Your task to perform on an android device: Open wifi settings Image 0: 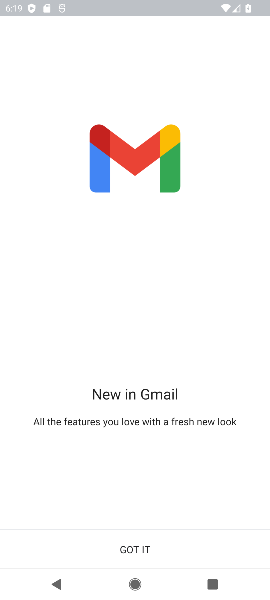
Step 0: press home button
Your task to perform on an android device: Open wifi settings Image 1: 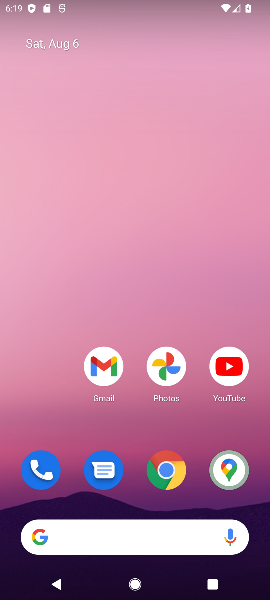
Step 1: drag from (133, 477) to (168, 78)
Your task to perform on an android device: Open wifi settings Image 2: 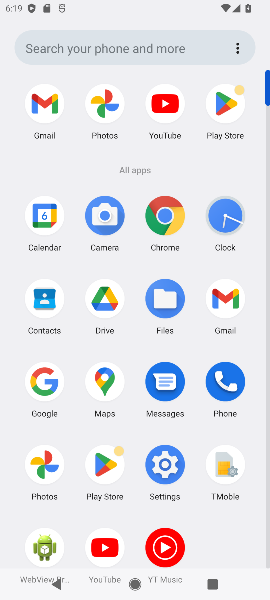
Step 2: drag from (68, 3) to (57, 458)
Your task to perform on an android device: Open wifi settings Image 3: 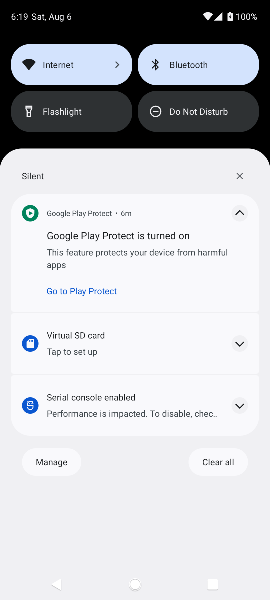
Step 3: click (56, 62)
Your task to perform on an android device: Open wifi settings Image 4: 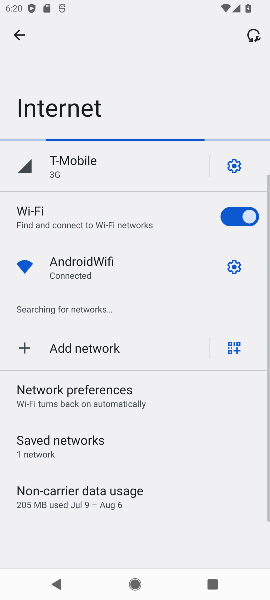
Step 4: task complete